Your task to perform on an android device: Go to Android settings Image 0: 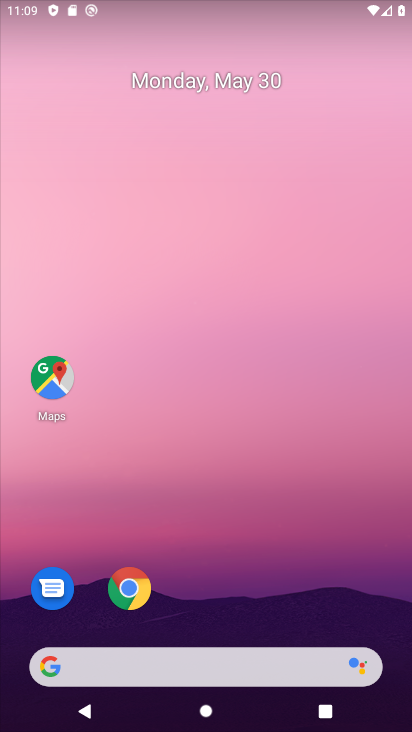
Step 0: press home button
Your task to perform on an android device: Go to Android settings Image 1: 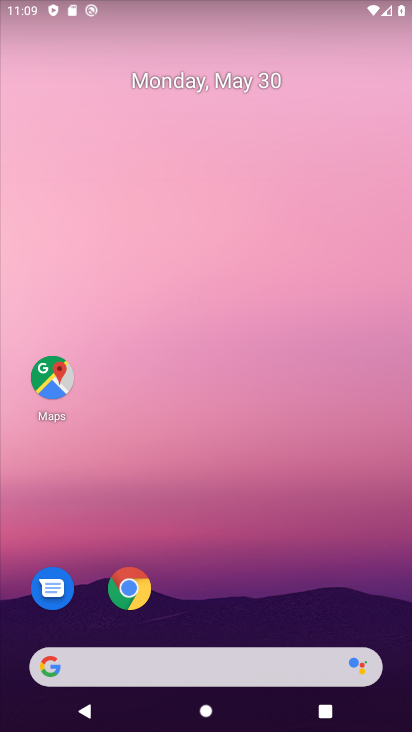
Step 1: drag from (214, 633) to (248, 5)
Your task to perform on an android device: Go to Android settings Image 2: 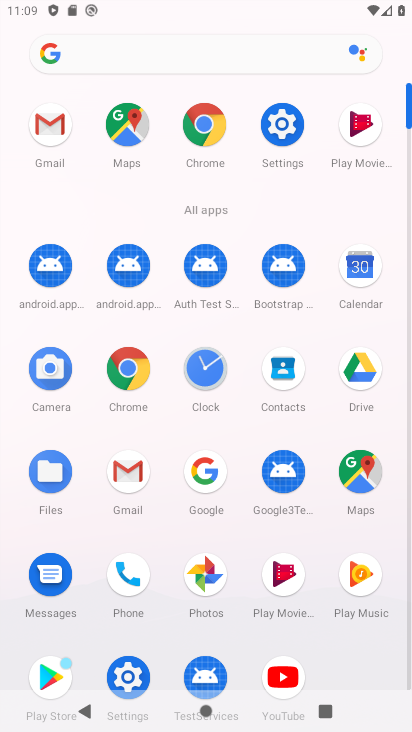
Step 2: click (285, 123)
Your task to perform on an android device: Go to Android settings Image 3: 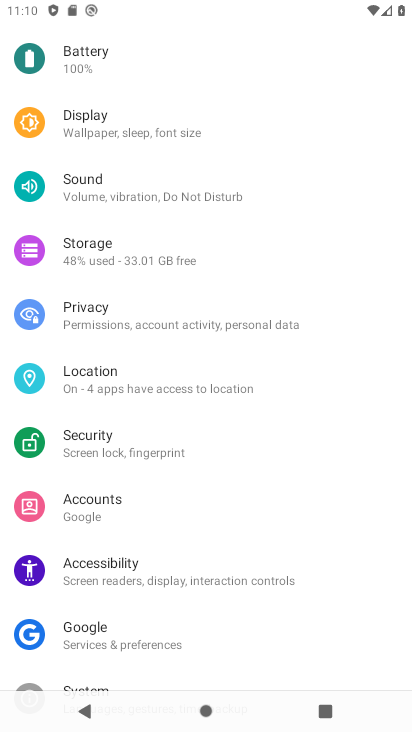
Step 3: drag from (205, 672) to (200, 61)
Your task to perform on an android device: Go to Android settings Image 4: 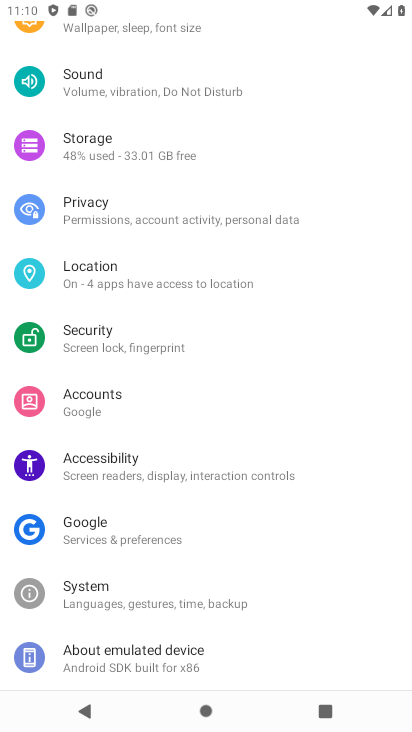
Step 4: click (214, 664)
Your task to perform on an android device: Go to Android settings Image 5: 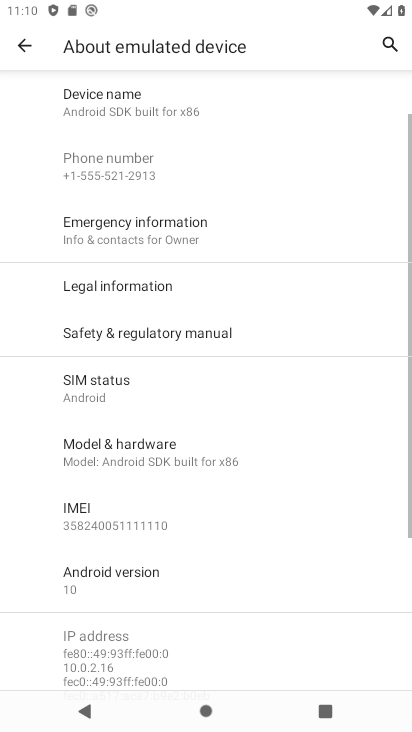
Step 5: click (121, 587)
Your task to perform on an android device: Go to Android settings Image 6: 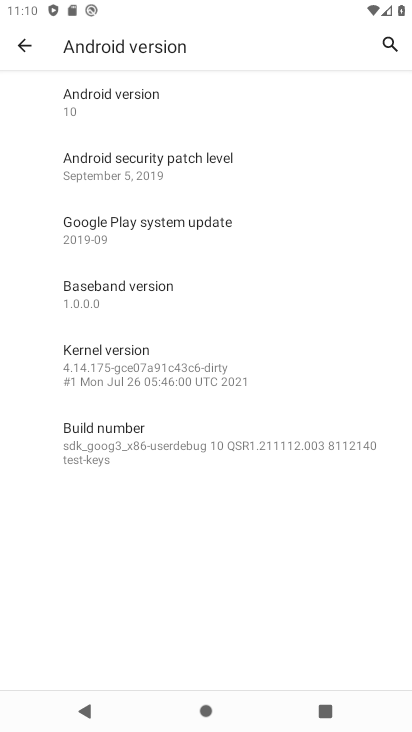
Step 6: task complete